Your task to perform on an android device: Open a new tab in Chrome Image 0: 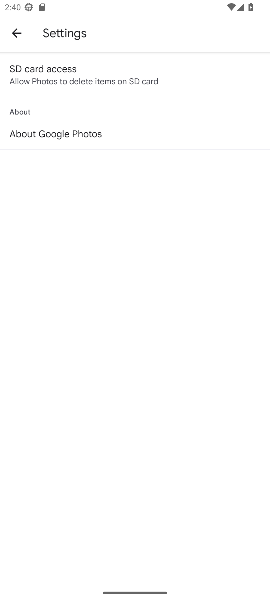
Step 0: press home button
Your task to perform on an android device: Open a new tab in Chrome Image 1: 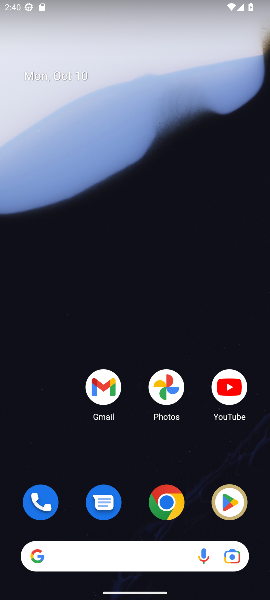
Step 1: click (163, 496)
Your task to perform on an android device: Open a new tab in Chrome Image 2: 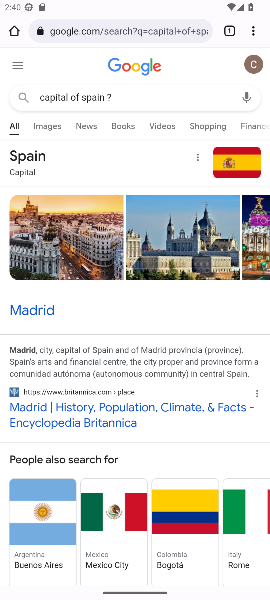
Step 2: click (253, 32)
Your task to perform on an android device: Open a new tab in Chrome Image 3: 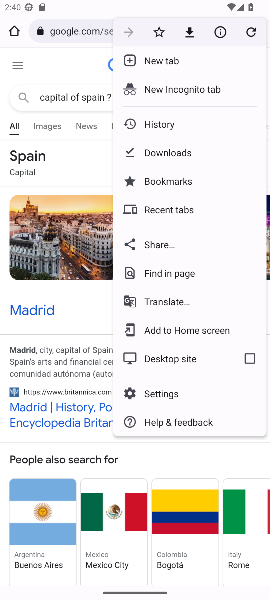
Step 3: click (183, 61)
Your task to perform on an android device: Open a new tab in Chrome Image 4: 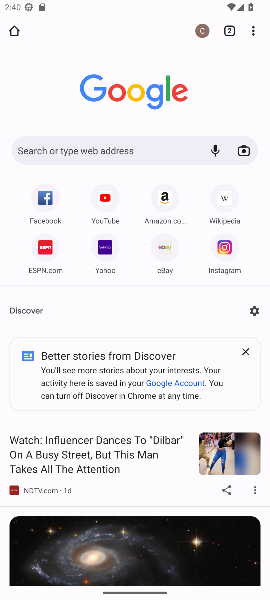
Step 4: task complete